Your task to perform on an android device: Open Google Chrome and open the bookmarks view Image 0: 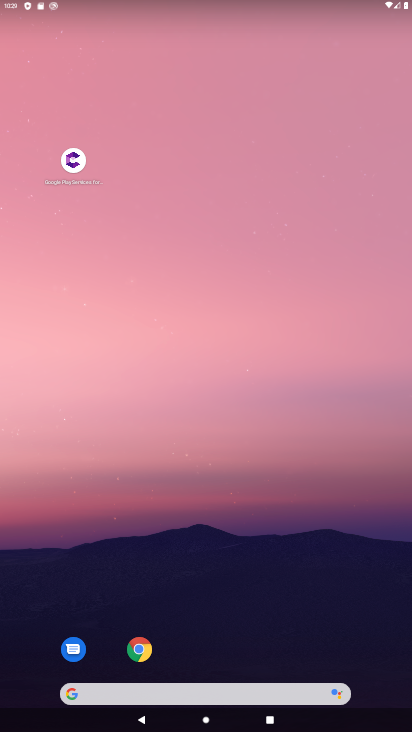
Step 0: click (138, 651)
Your task to perform on an android device: Open Google Chrome and open the bookmarks view Image 1: 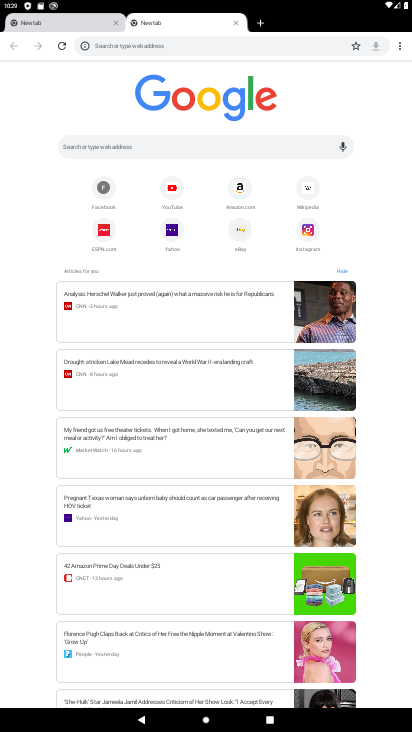
Step 1: task complete